Your task to perform on an android device: turn vacation reply on in the gmail app Image 0: 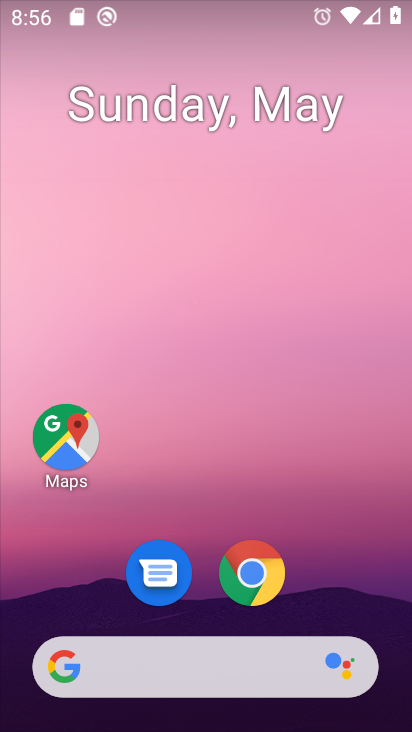
Step 0: drag from (223, 499) to (259, 0)
Your task to perform on an android device: turn vacation reply on in the gmail app Image 1: 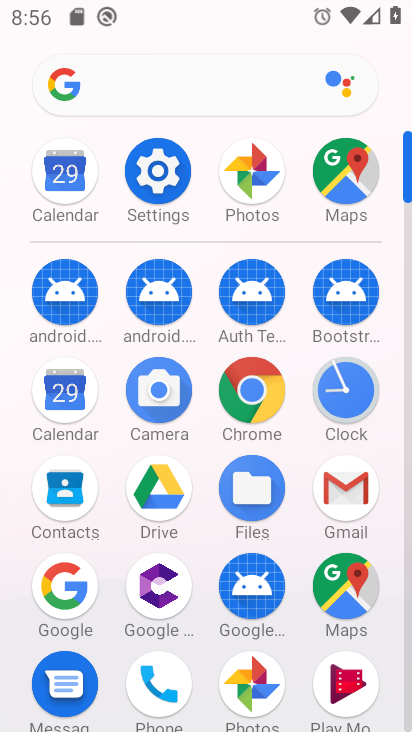
Step 1: click (340, 482)
Your task to perform on an android device: turn vacation reply on in the gmail app Image 2: 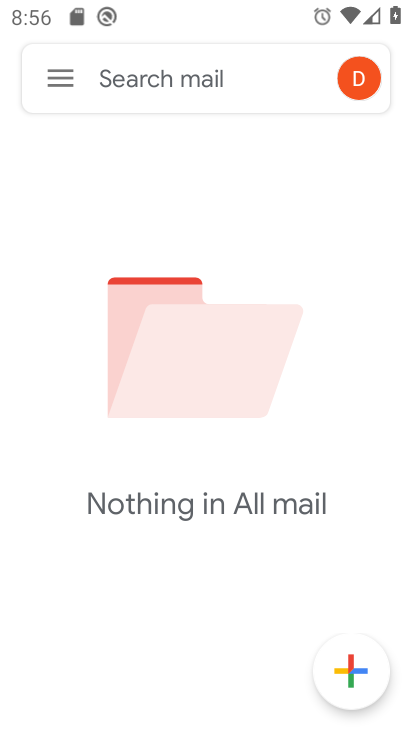
Step 2: click (64, 80)
Your task to perform on an android device: turn vacation reply on in the gmail app Image 3: 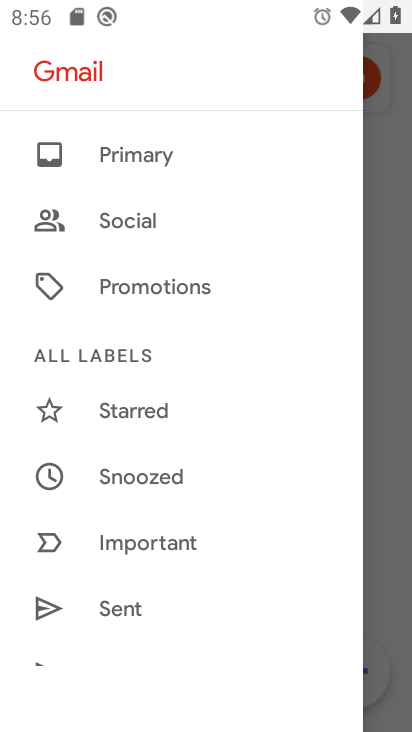
Step 3: drag from (184, 493) to (269, 0)
Your task to perform on an android device: turn vacation reply on in the gmail app Image 4: 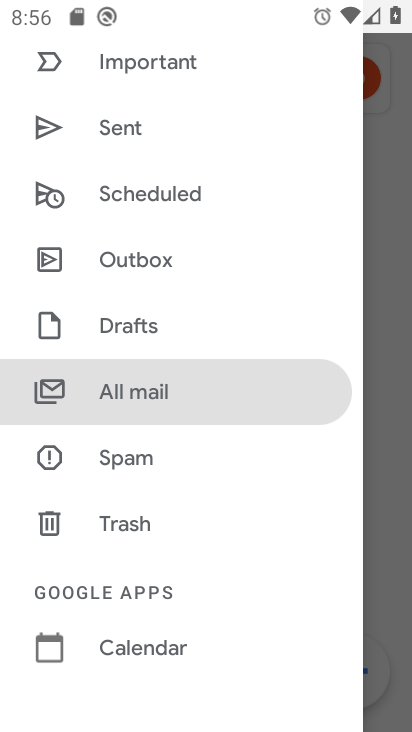
Step 4: drag from (181, 492) to (238, 42)
Your task to perform on an android device: turn vacation reply on in the gmail app Image 5: 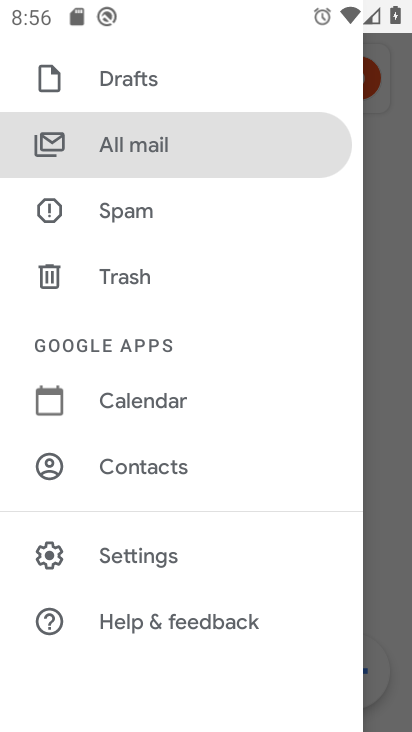
Step 5: click (133, 546)
Your task to perform on an android device: turn vacation reply on in the gmail app Image 6: 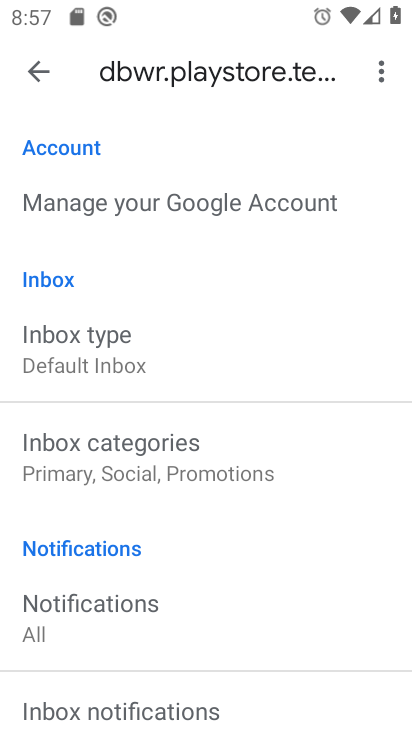
Step 6: drag from (219, 559) to (281, 13)
Your task to perform on an android device: turn vacation reply on in the gmail app Image 7: 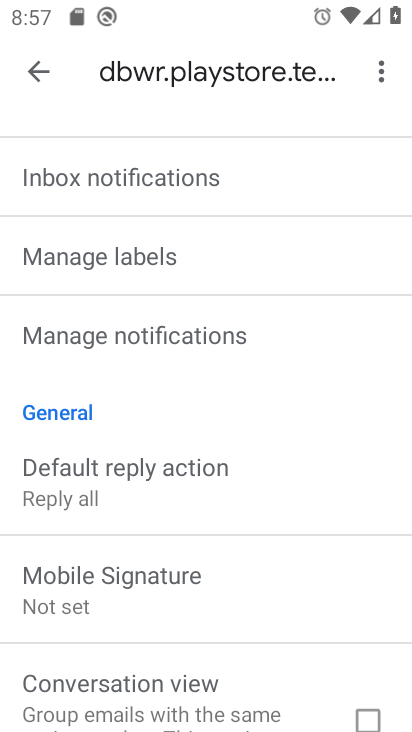
Step 7: drag from (204, 508) to (238, 146)
Your task to perform on an android device: turn vacation reply on in the gmail app Image 8: 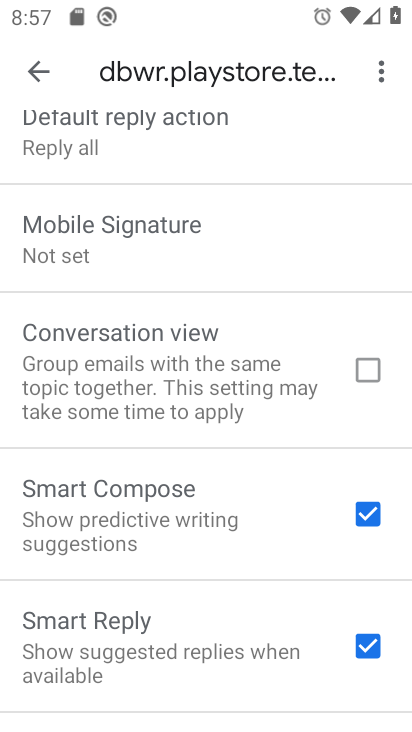
Step 8: drag from (212, 566) to (249, 161)
Your task to perform on an android device: turn vacation reply on in the gmail app Image 9: 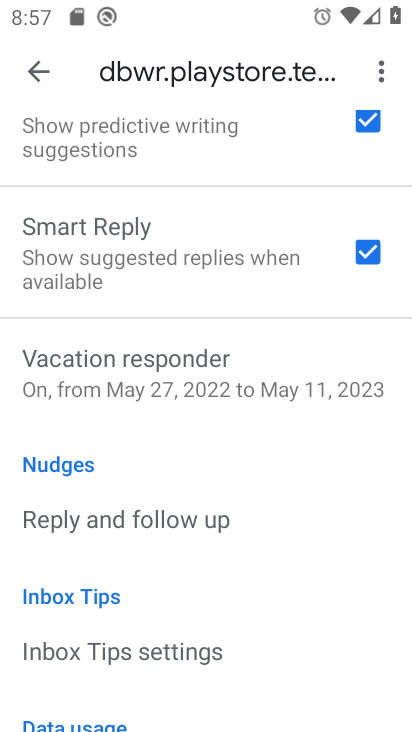
Step 9: click (180, 369)
Your task to perform on an android device: turn vacation reply on in the gmail app Image 10: 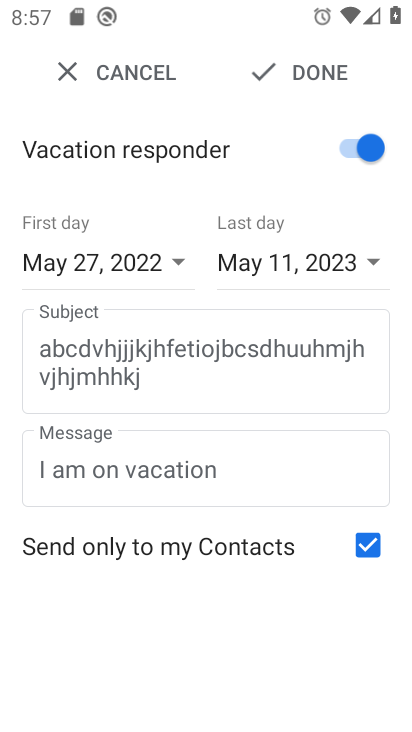
Step 10: task complete